Your task to perform on an android device: Open Google Chrome and click the shortcut for Amazon.com Image 0: 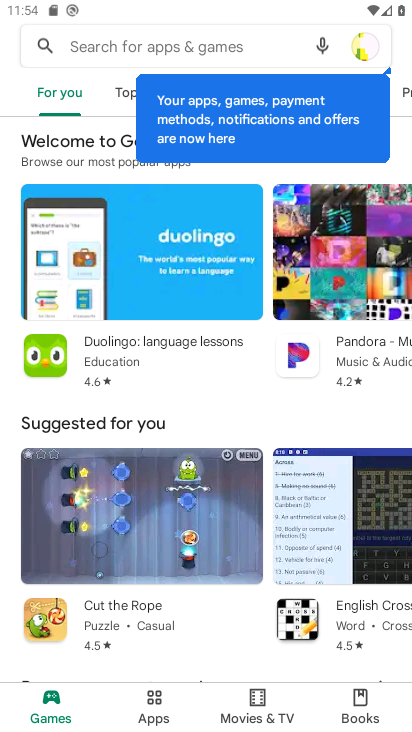
Step 0: press home button
Your task to perform on an android device: Open Google Chrome and click the shortcut for Amazon.com Image 1: 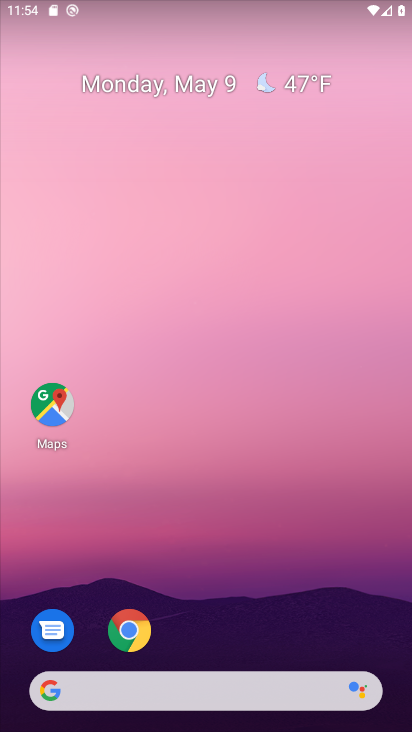
Step 1: click (140, 623)
Your task to perform on an android device: Open Google Chrome and click the shortcut for Amazon.com Image 2: 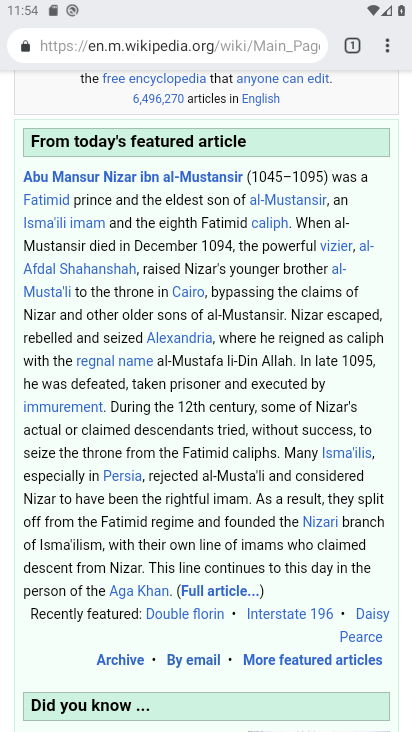
Step 2: click (351, 45)
Your task to perform on an android device: Open Google Chrome and click the shortcut for Amazon.com Image 3: 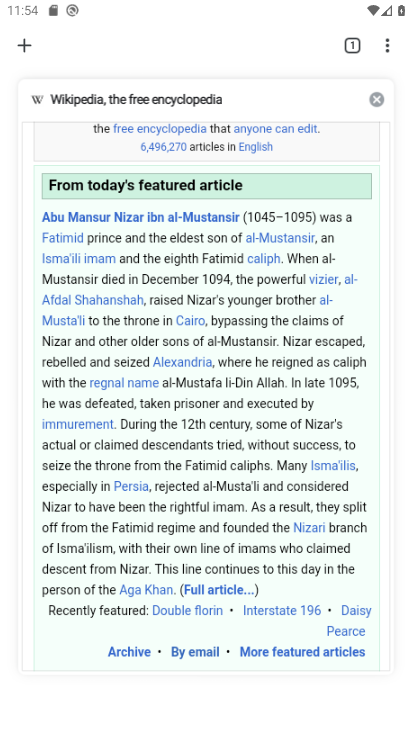
Step 3: click (25, 44)
Your task to perform on an android device: Open Google Chrome and click the shortcut for Amazon.com Image 4: 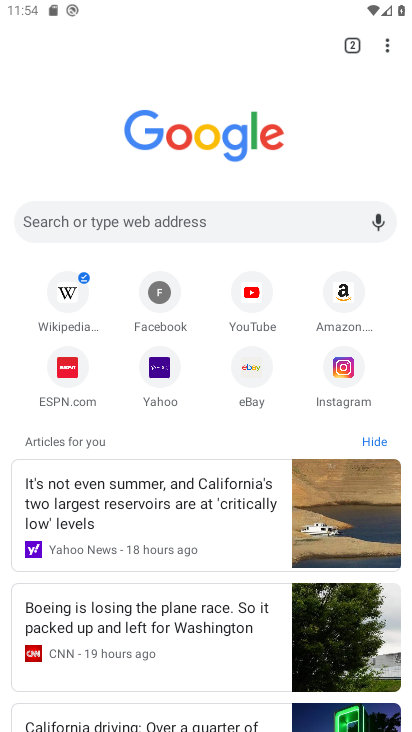
Step 4: click (347, 290)
Your task to perform on an android device: Open Google Chrome and click the shortcut for Amazon.com Image 5: 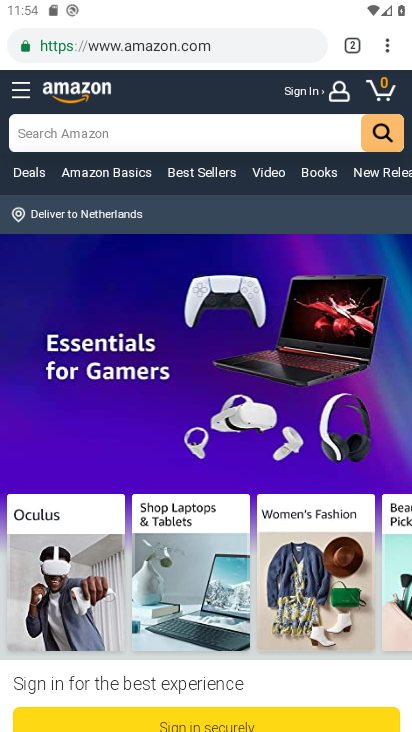
Step 5: task complete